Your task to perform on an android device: show emergency info Image 0: 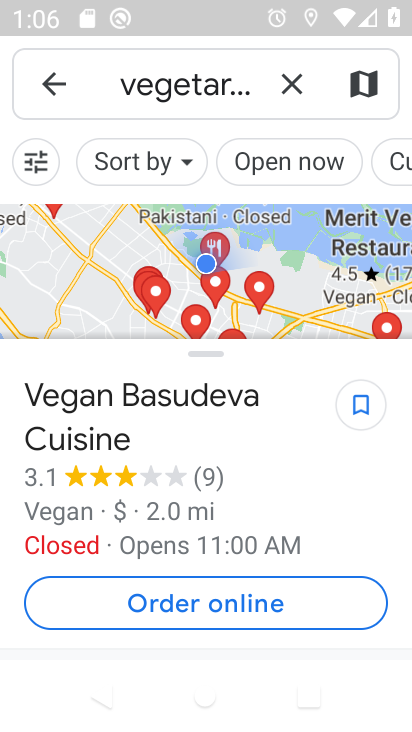
Step 0: press home button
Your task to perform on an android device: show emergency info Image 1: 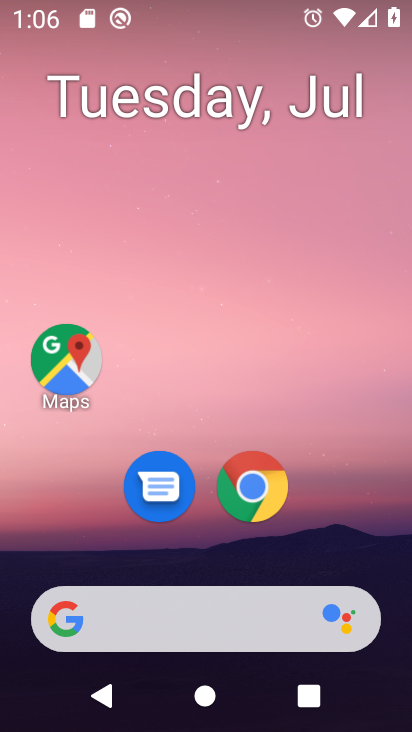
Step 1: drag from (372, 505) to (338, 91)
Your task to perform on an android device: show emergency info Image 2: 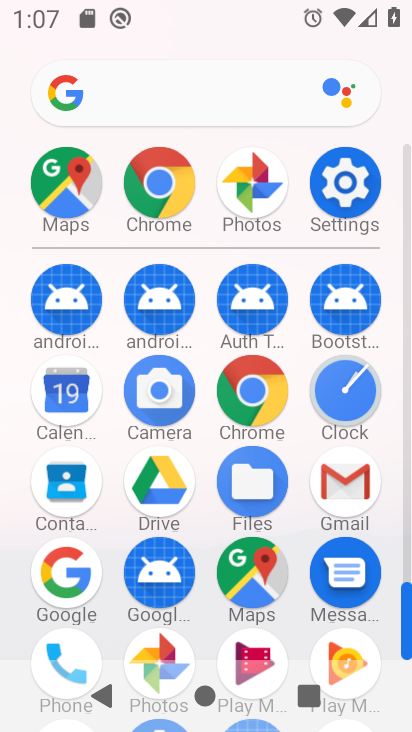
Step 2: click (366, 188)
Your task to perform on an android device: show emergency info Image 3: 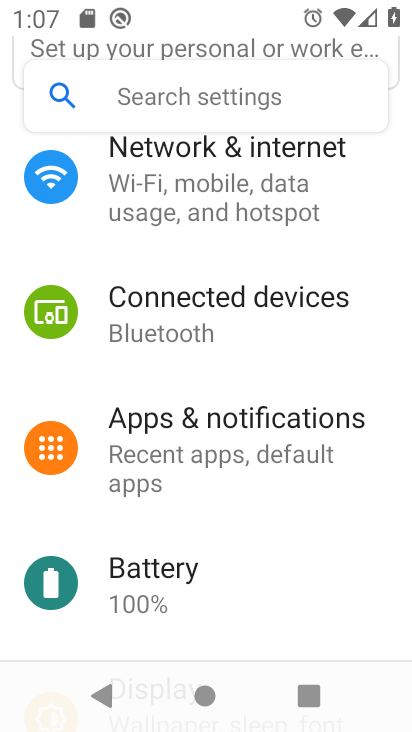
Step 3: drag from (340, 556) to (333, 376)
Your task to perform on an android device: show emergency info Image 4: 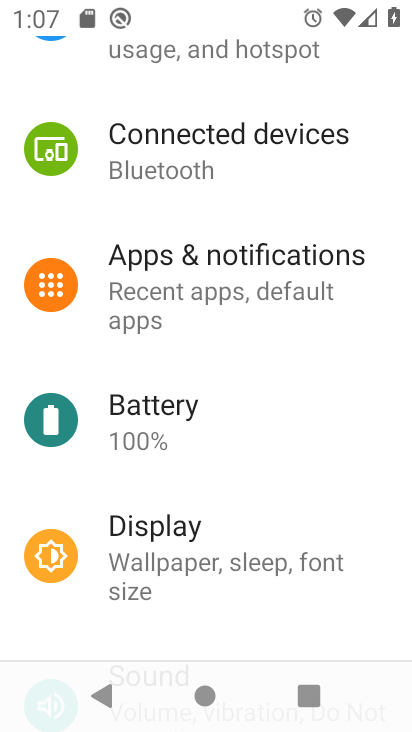
Step 4: drag from (341, 553) to (338, 422)
Your task to perform on an android device: show emergency info Image 5: 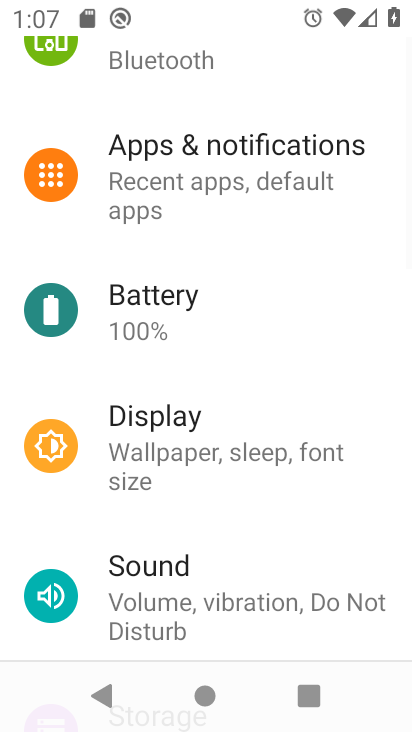
Step 5: drag from (342, 539) to (337, 336)
Your task to perform on an android device: show emergency info Image 6: 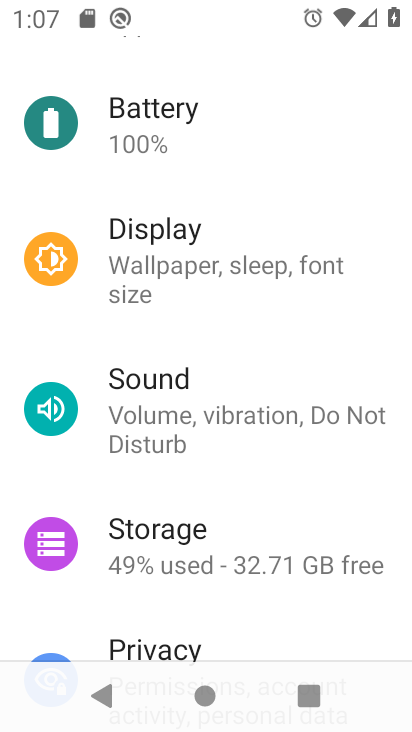
Step 6: drag from (340, 517) to (339, 399)
Your task to perform on an android device: show emergency info Image 7: 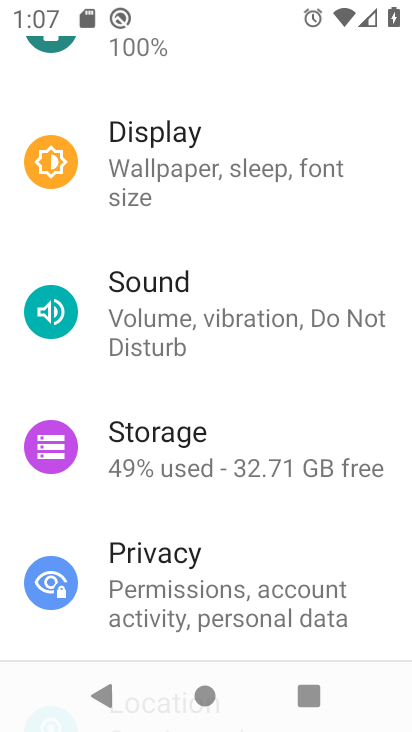
Step 7: drag from (344, 544) to (339, 411)
Your task to perform on an android device: show emergency info Image 8: 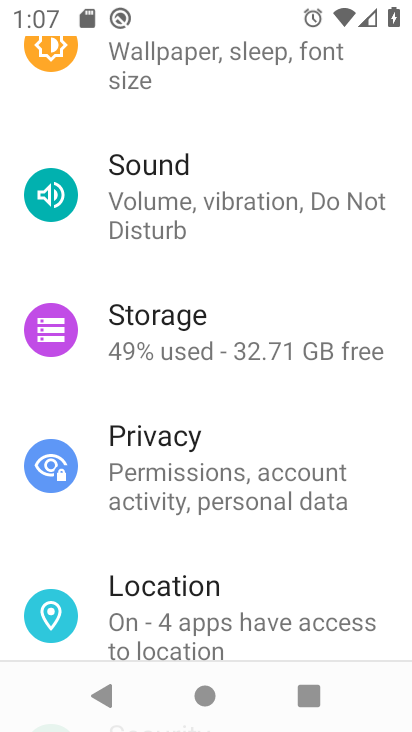
Step 8: drag from (315, 551) to (315, 433)
Your task to perform on an android device: show emergency info Image 9: 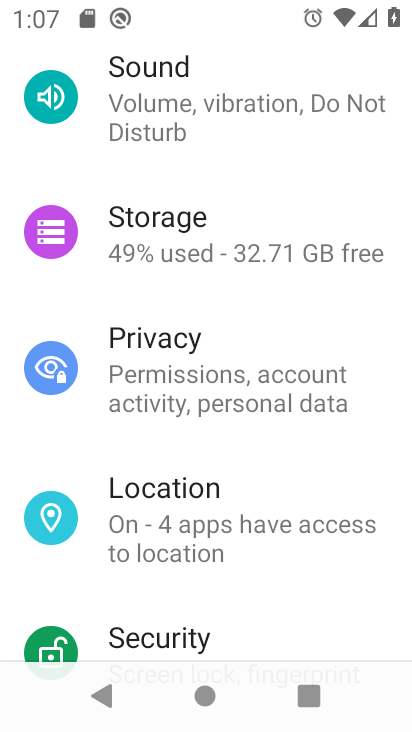
Step 9: drag from (288, 589) to (286, 450)
Your task to perform on an android device: show emergency info Image 10: 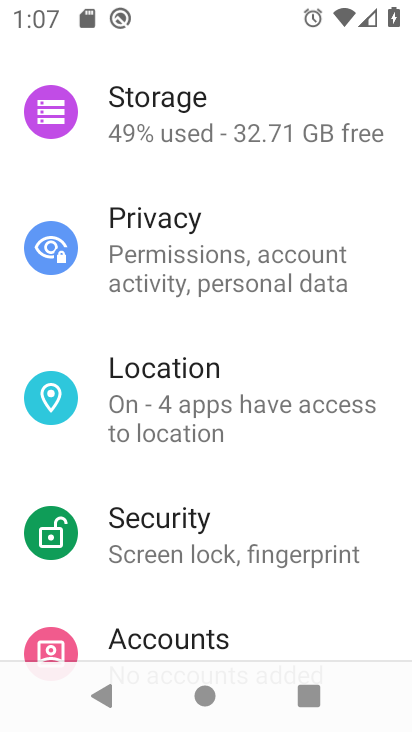
Step 10: drag from (292, 566) to (289, 409)
Your task to perform on an android device: show emergency info Image 11: 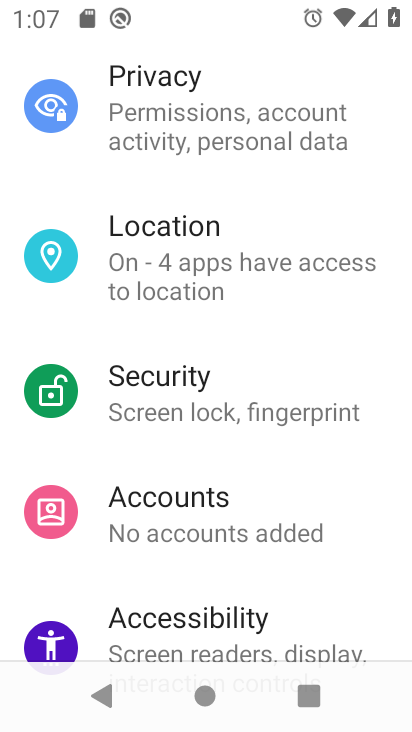
Step 11: drag from (318, 590) to (311, 427)
Your task to perform on an android device: show emergency info Image 12: 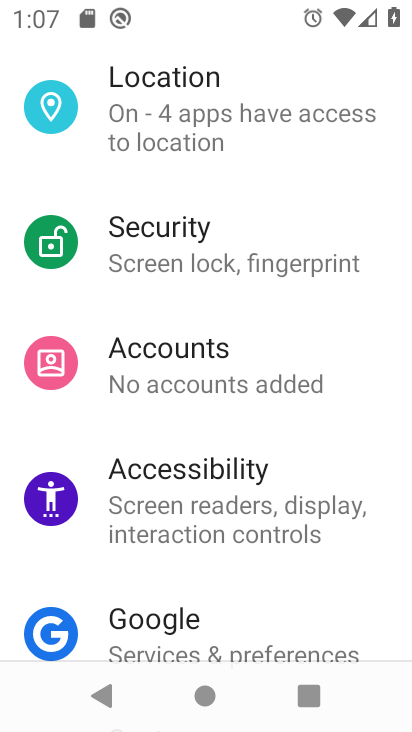
Step 12: drag from (308, 599) to (314, 416)
Your task to perform on an android device: show emergency info Image 13: 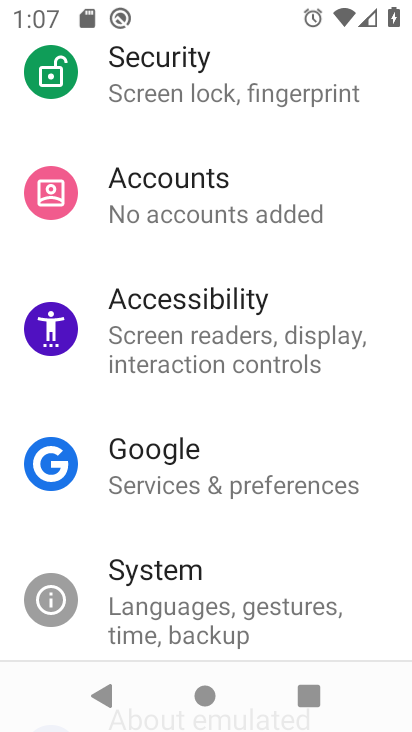
Step 13: drag from (326, 640) to (319, 424)
Your task to perform on an android device: show emergency info Image 14: 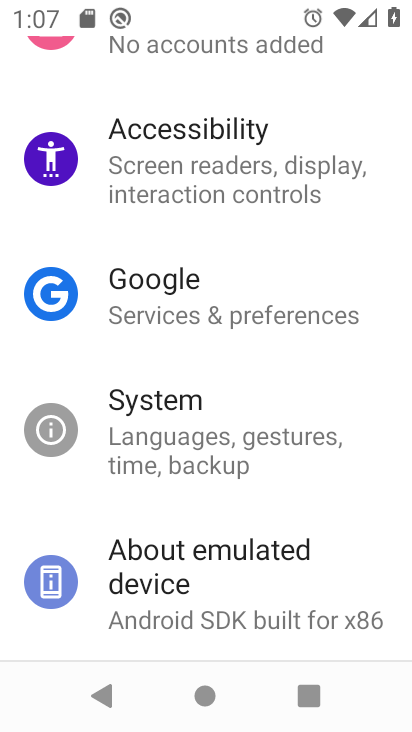
Step 14: click (282, 573)
Your task to perform on an android device: show emergency info Image 15: 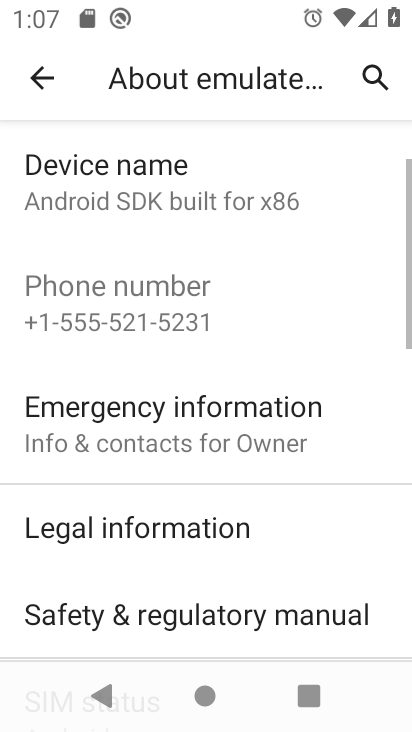
Step 15: click (232, 424)
Your task to perform on an android device: show emergency info Image 16: 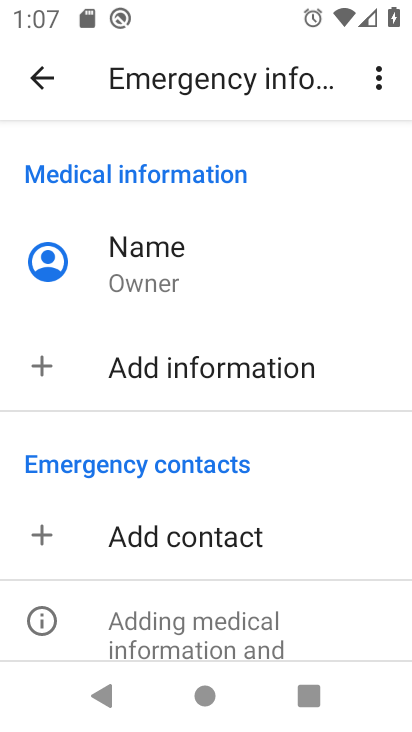
Step 16: task complete